Your task to perform on an android device: move an email to a new category in the gmail app Image 0: 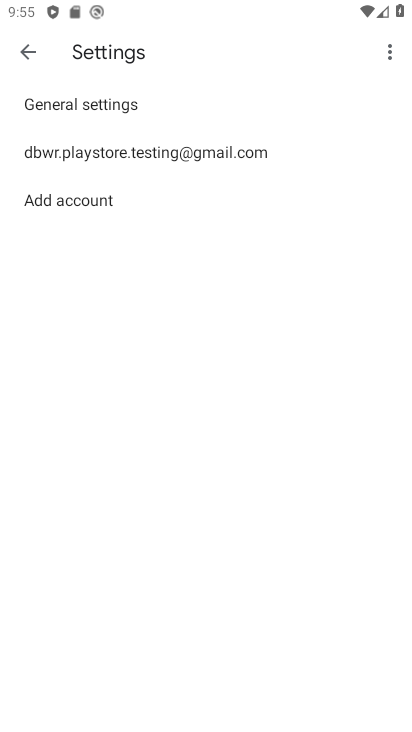
Step 0: press home button
Your task to perform on an android device: move an email to a new category in the gmail app Image 1: 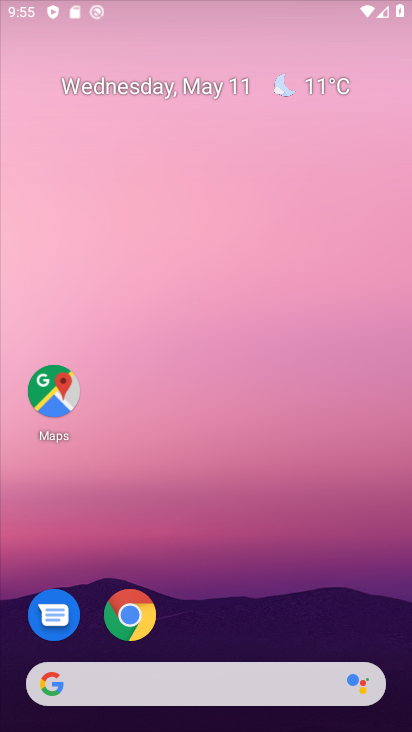
Step 1: drag from (261, 447) to (299, 63)
Your task to perform on an android device: move an email to a new category in the gmail app Image 2: 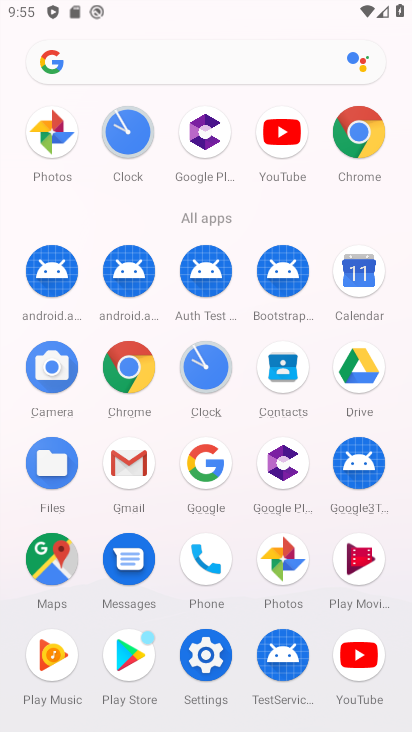
Step 2: click (129, 483)
Your task to perform on an android device: move an email to a new category in the gmail app Image 3: 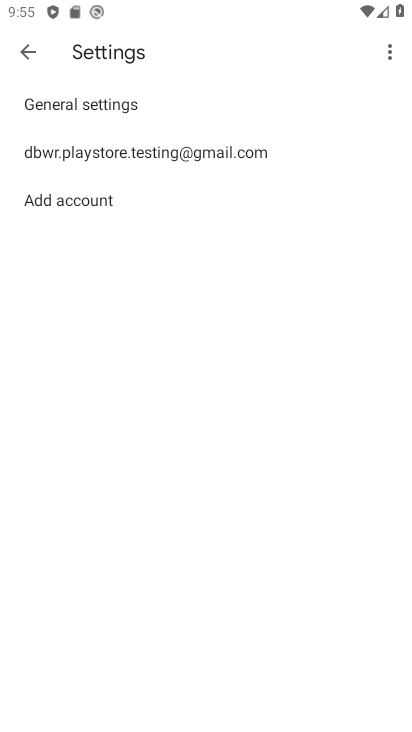
Step 3: click (23, 45)
Your task to perform on an android device: move an email to a new category in the gmail app Image 4: 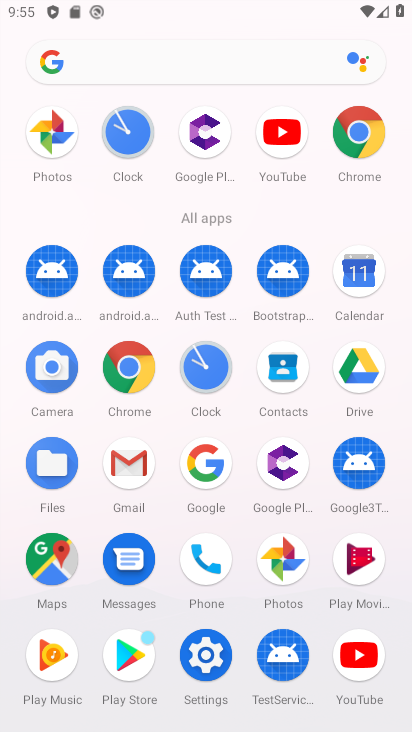
Step 4: click (125, 475)
Your task to perform on an android device: move an email to a new category in the gmail app Image 5: 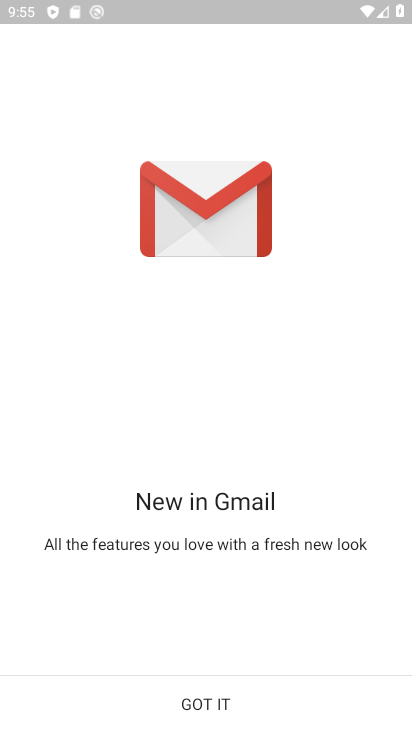
Step 5: click (233, 718)
Your task to perform on an android device: move an email to a new category in the gmail app Image 6: 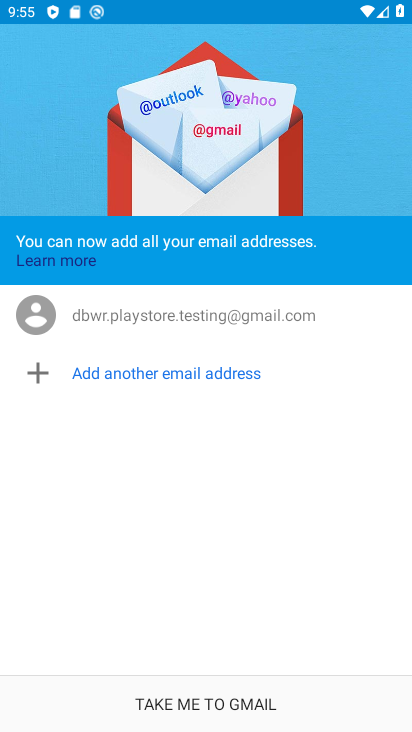
Step 6: click (230, 701)
Your task to perform on an android device: move an email to a new category in the gmail app Image 7: 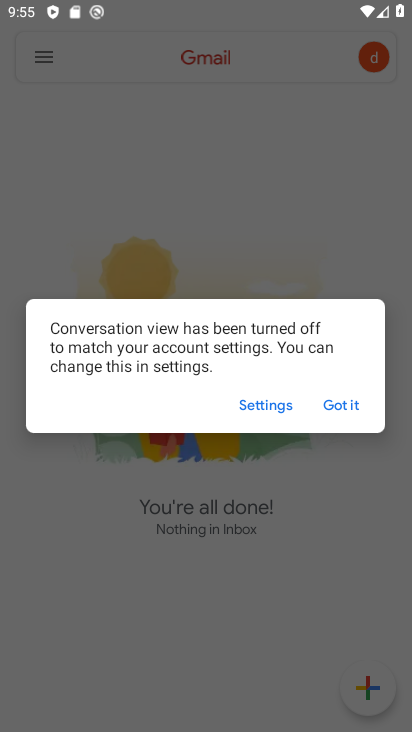
Step 7: click (342, 407)
Your task to perform on an android device: move an email to a new category in the gmail app Image 8: 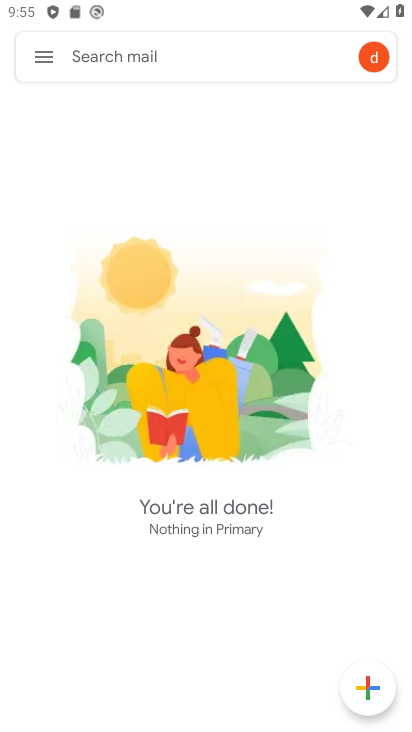
Step 8: click (41, 59)
Your task to perform on an android device: move an email to a new category in the gmail app Image 9: 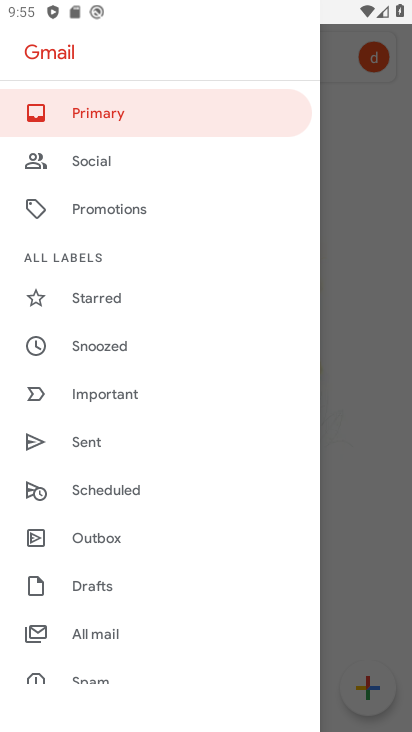
Step 9: click (93, 630)
Your task to perform on an android device: move an email to a new category in the gmail app Image 10: 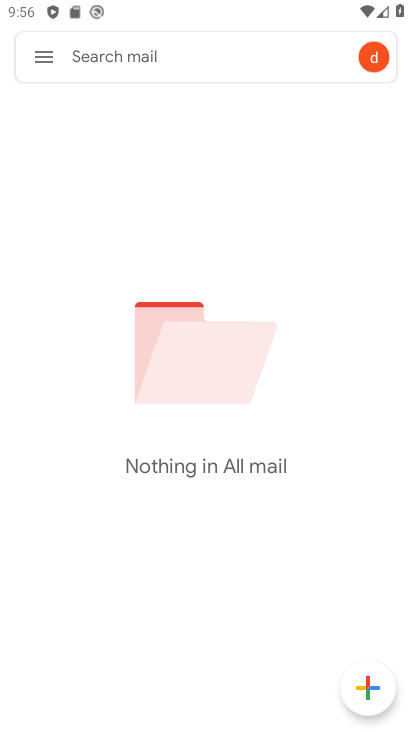
Step 10: task complete